Your task to perform on an android device: set the timer Image 0: 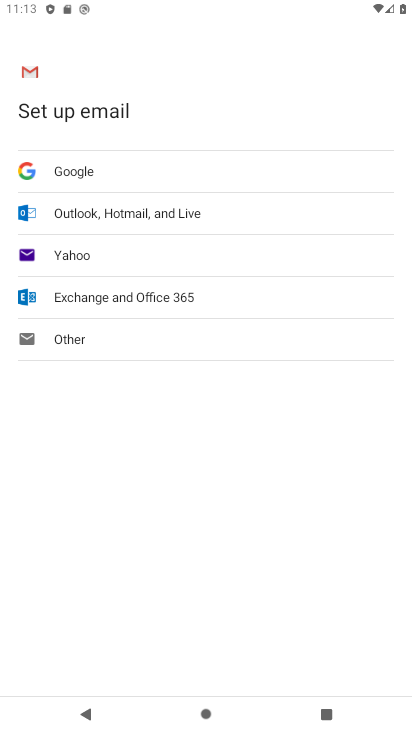
Step 0: drag from (146, 531) to (233, 272)
Your task to perform on an android device: set the timer Image 1: 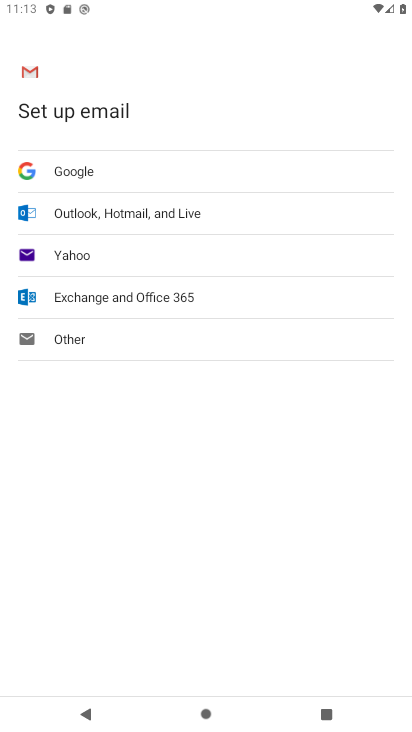
Step 1: press home button
Your task to perform on an android device: set the timer Image 2: 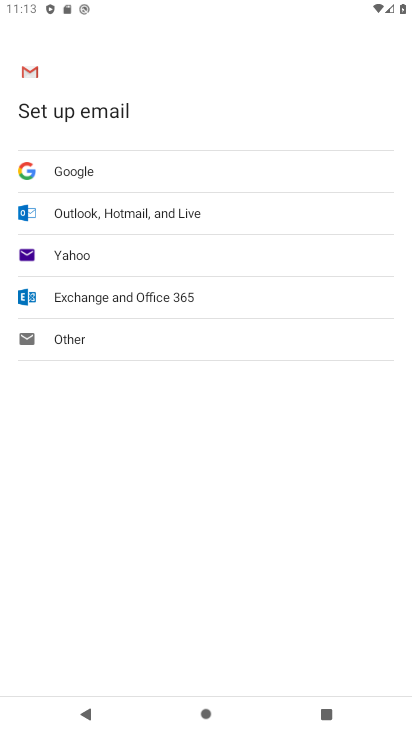
Step 2: press home button
Your task to perform on an android device: set the timer Image 3: 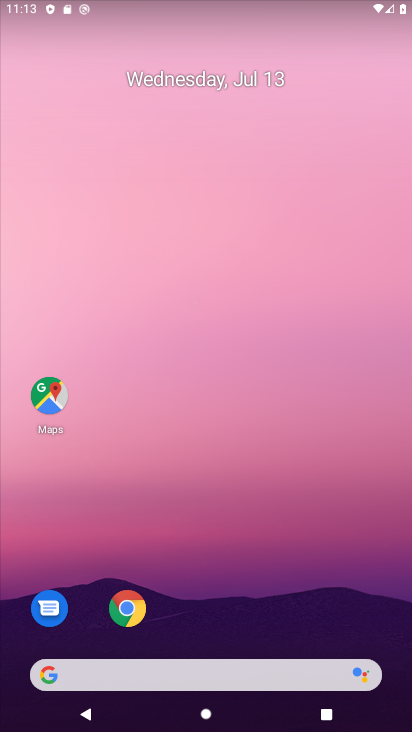
Step 3: drag from (197, 598) to (248, 93)
Your task to perform on an android device: set the timer Image 4: 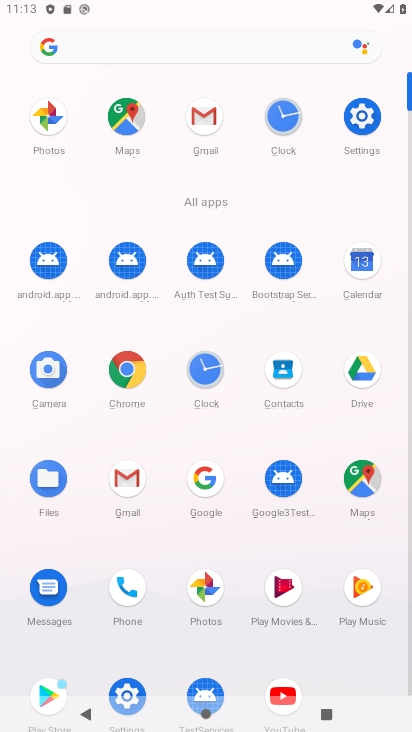
Step 4: click (206, 368)
Your task to perform on an android device: set the timer Image 5: 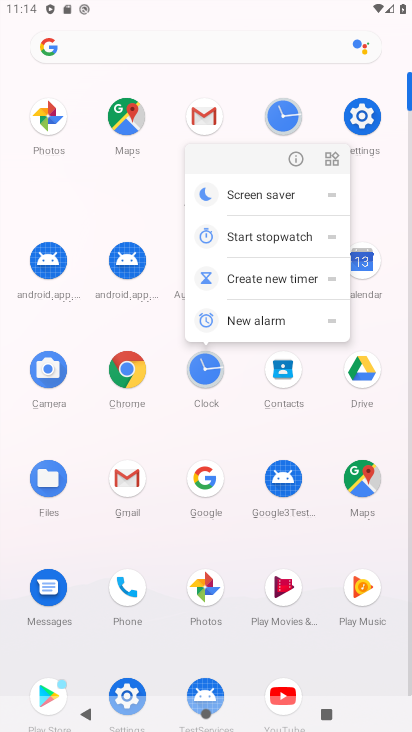
Step 5: click (292, 162)
Your task to perform on an android device: set the timer Image 6: 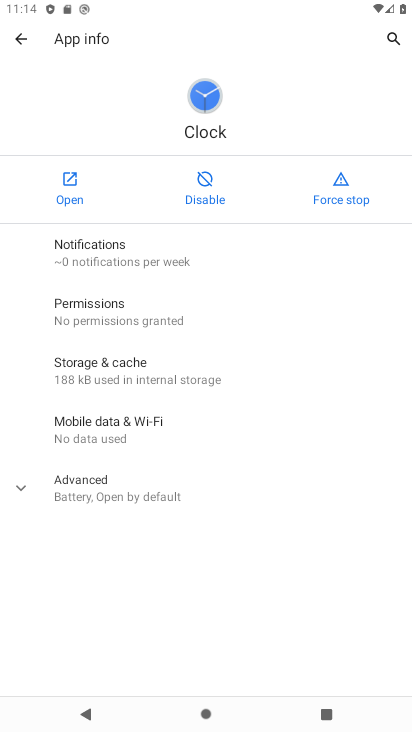
Step 6: click (64, 191)
Your task to perform on an android device: set the timer Image 7: 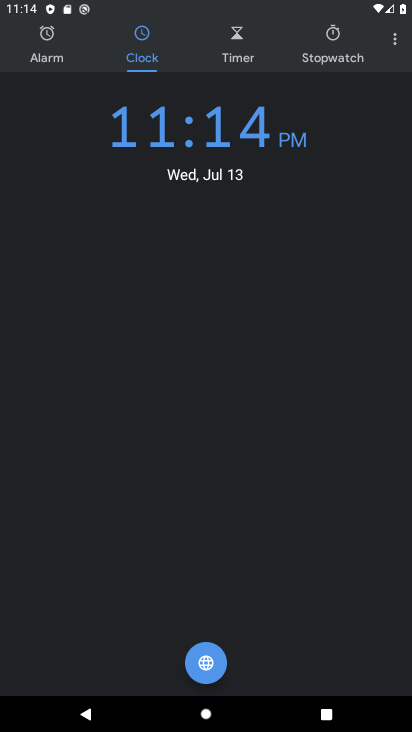
Step 7: click (400, 40)
Your task to perform on an android device: set the timer Image 8: 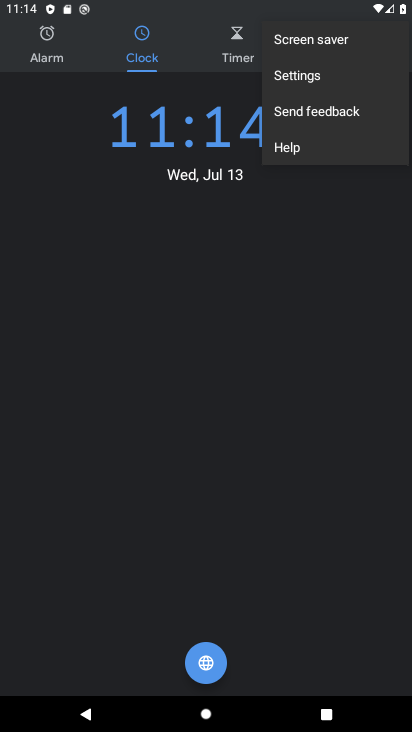
Step 8: click (312, 66)
Your task to perform on an android device: set the timer Image 9: 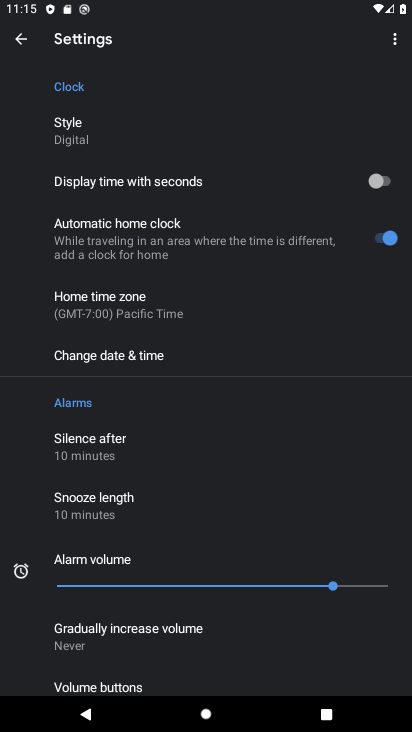
Step 9: click (20, 49)
Your task to perform on an android device: set the timer Image 10: 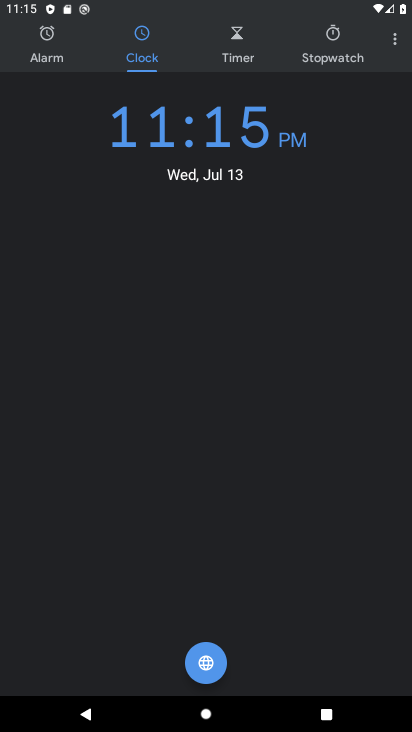
Step 10: click (246, 18)
Your task to perform on an android device: set the timer Image 11: 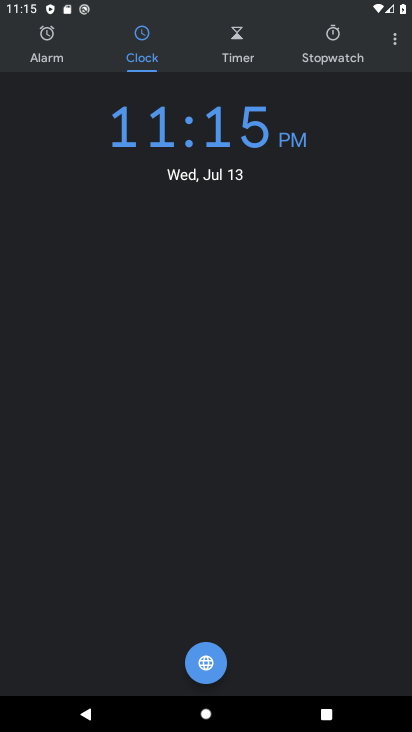
Step 11: click (238, 53)
Your task to perform on an android device: set the timer Image 12: 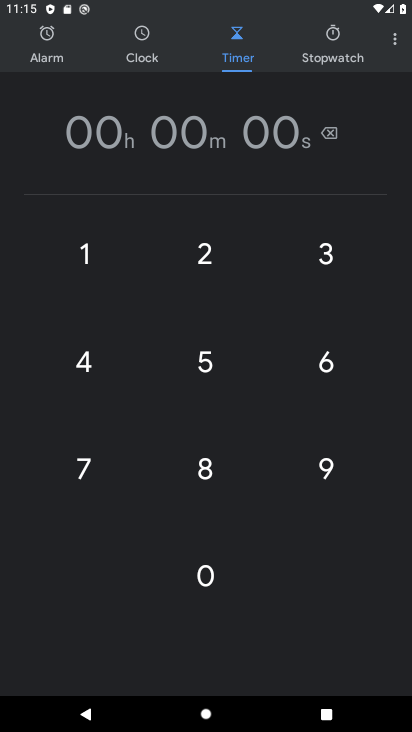
Step 12: click (221, 258)
Your task to perform on an android device: set the timer Image 13: 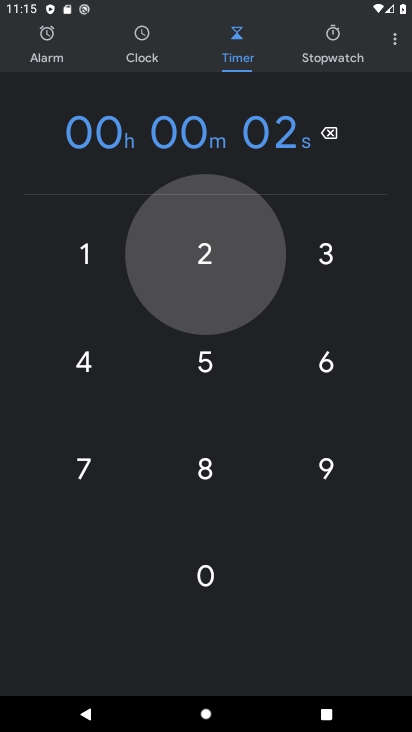
Step 13: click (348, 239)
Your task to perform on an android device: set the timer Image 14: 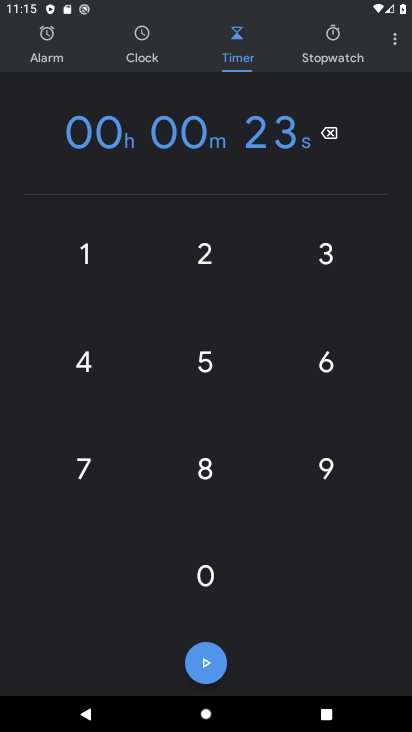
Step 14: click (204, 669)
Your task to perform on an android device: set the timer Image 15: 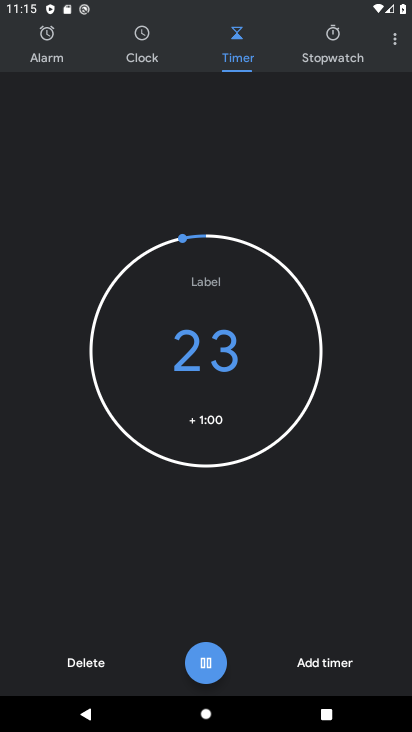
Step 15: task complete